Your task to perform on an android device: Open eBay Image 0: 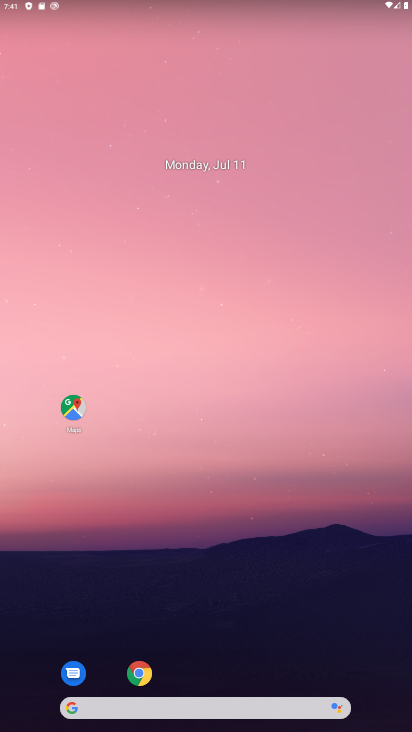
Step 0: drag from (241, 616) to (266, 234)
Your task to perform on an android device: Open eBay Image 1: 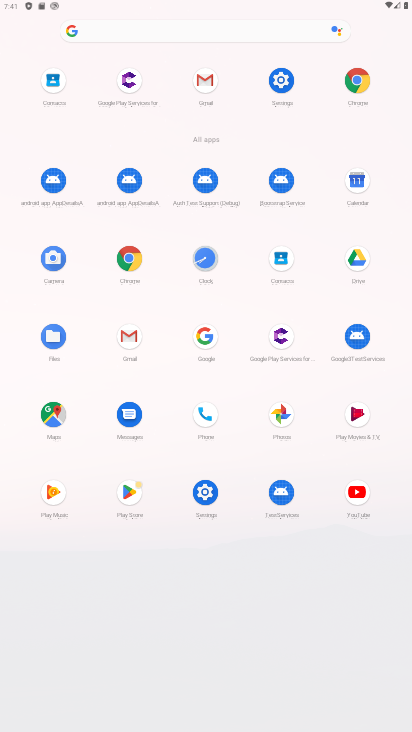
Step 1: click (132, 262)
Your task to perform on an android device: Open eBay Image 2: 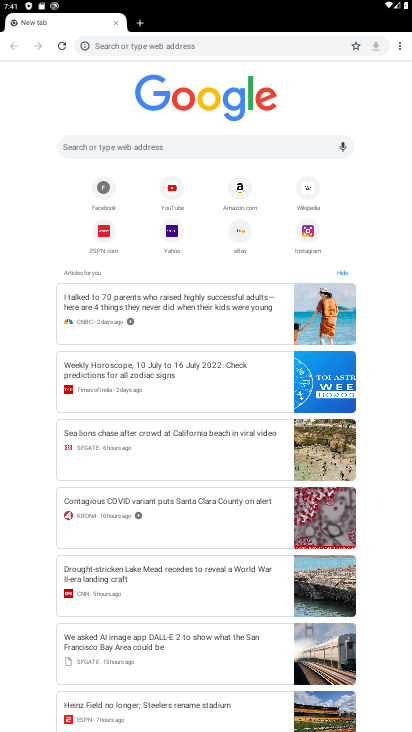
Step 2: click (241, 229)
Your task to perform on an android device: Open eBay Image 3: 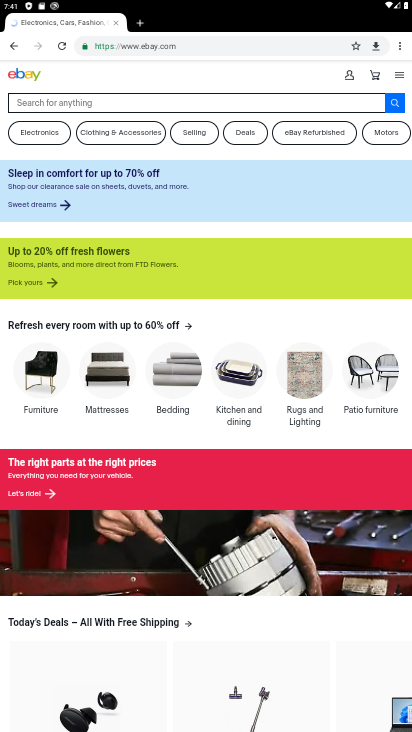
Step 3: task complete